Your task to perform on an android device: Turn on the flashlight Image 0: 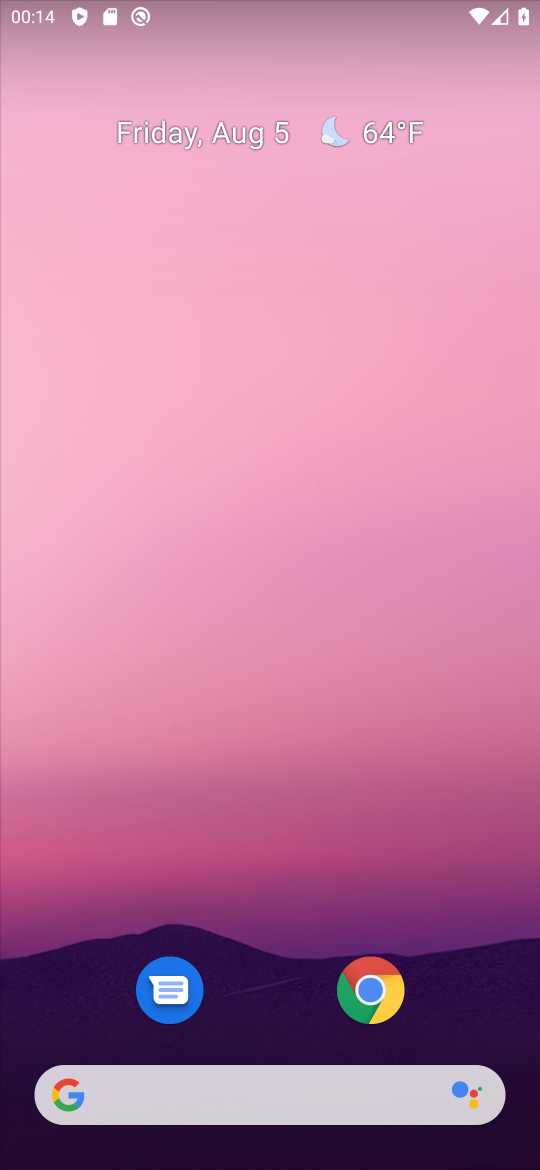
Step 0: press back button
Your task to perform on an android device: Turn on the flashlight Image 1: 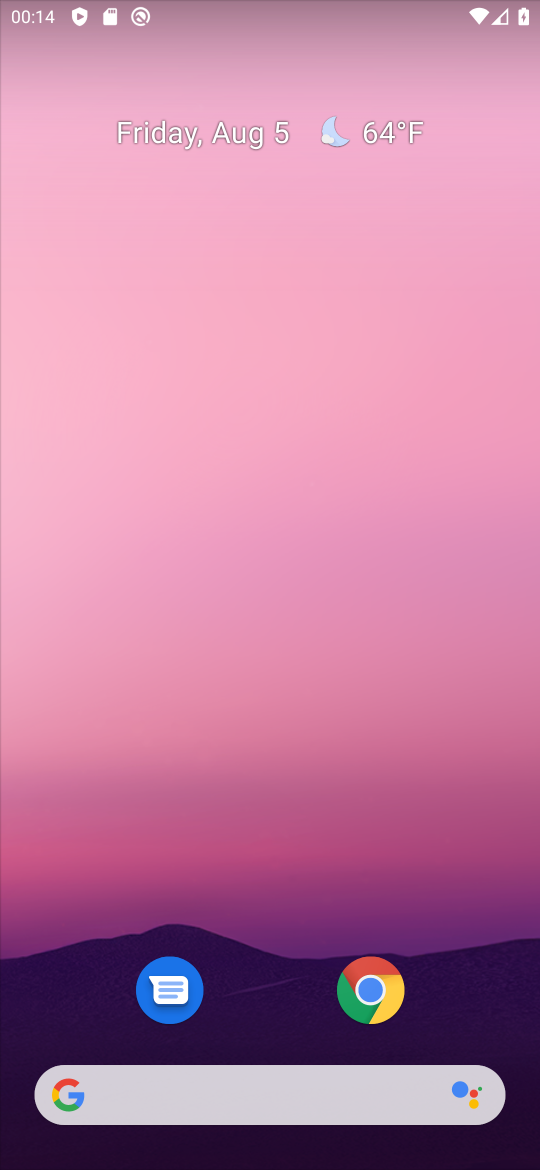
Step 1: press home button
Your task to perform on an android device: Turn on the flashlight Image 2: 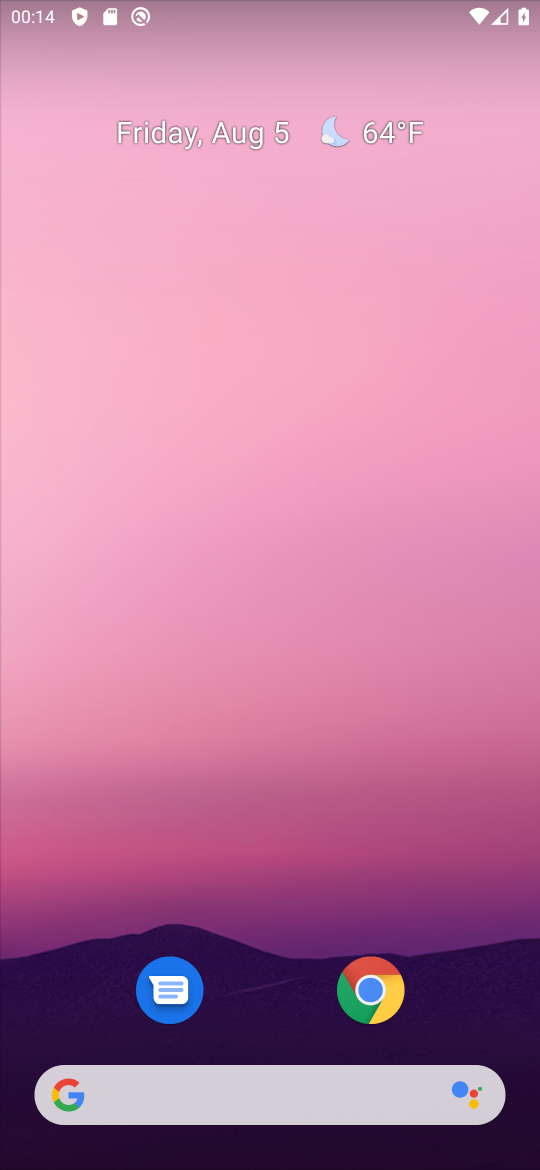
Step 2: drag from (474, 972) to (296, 87)
Your task to perform on an android device: Turn on the flashlight Image 3: 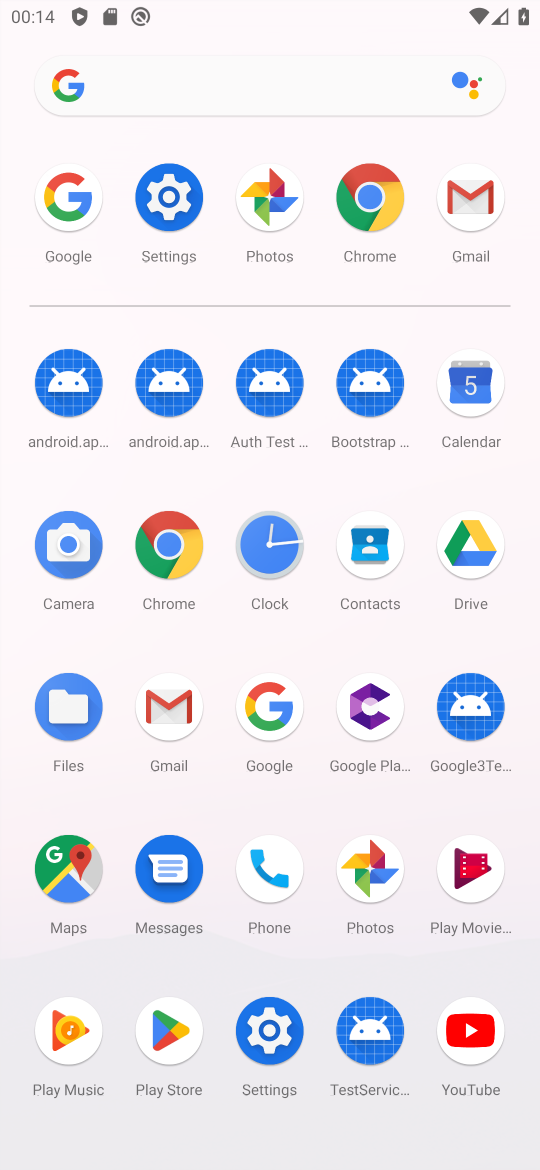
Step 3: press home button
Your task to perform on an android device: Turn on the flashlight Image 4: 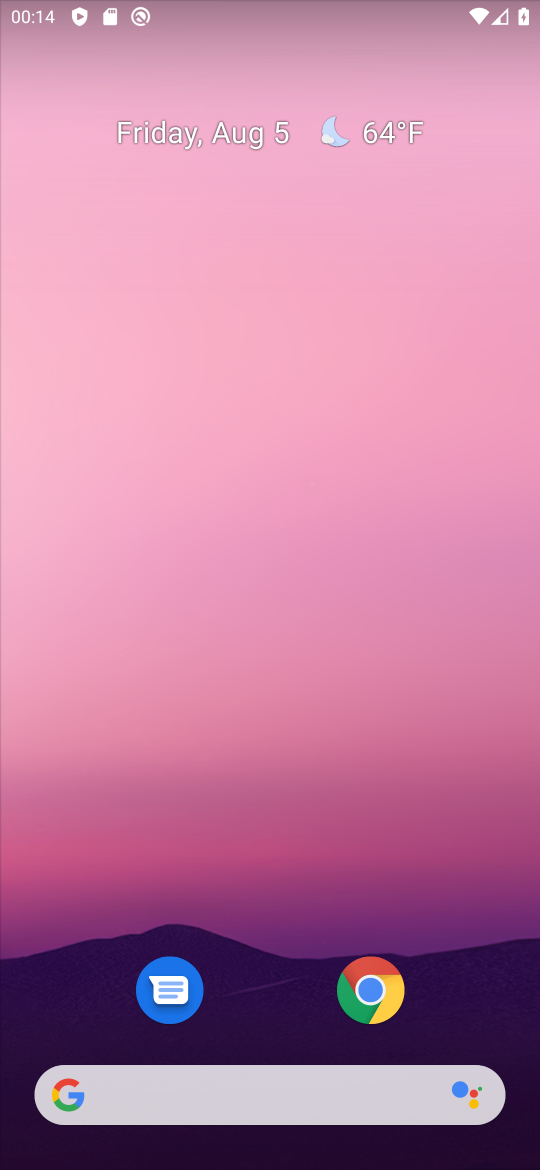
Step 4: drag from (310, 11) to (419, 857)
Your task to perform on an android device: Turn on the flashlight Image 5: 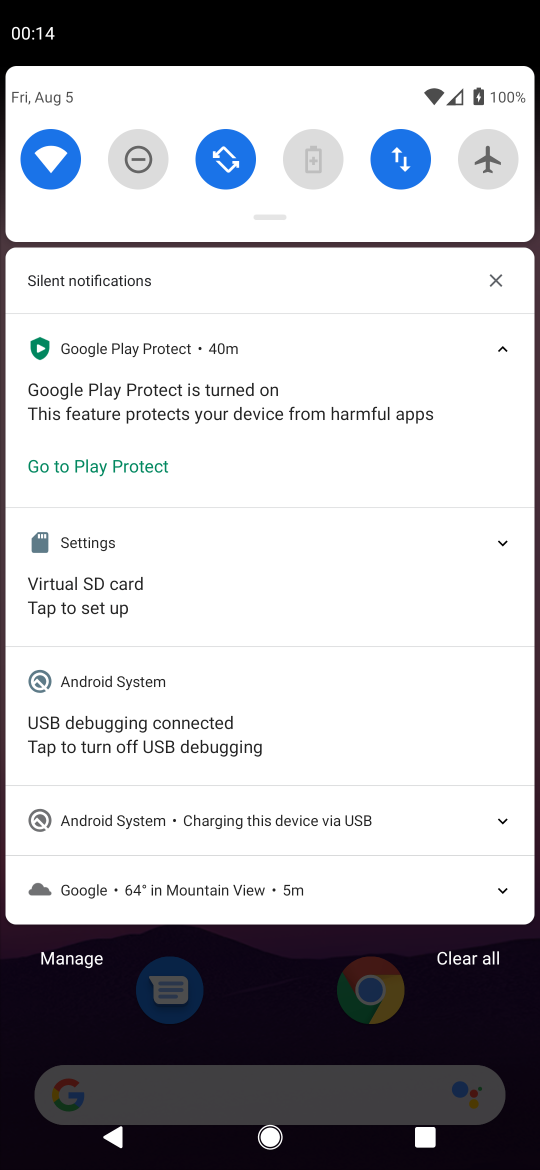
Step 5: drag from (268, 193) to (344, 1130)
Your task to perform on an android device: Turn on the flashlight Image 6: 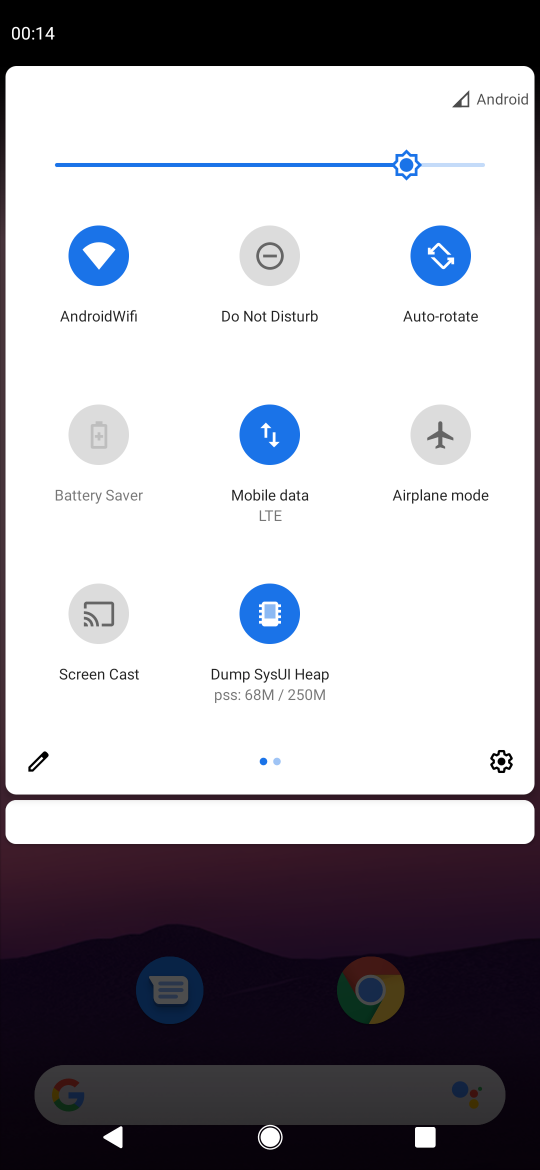
Step 6: click (32, 756)
Your task to perform on an android device: Turn on the flashlight Image 7: 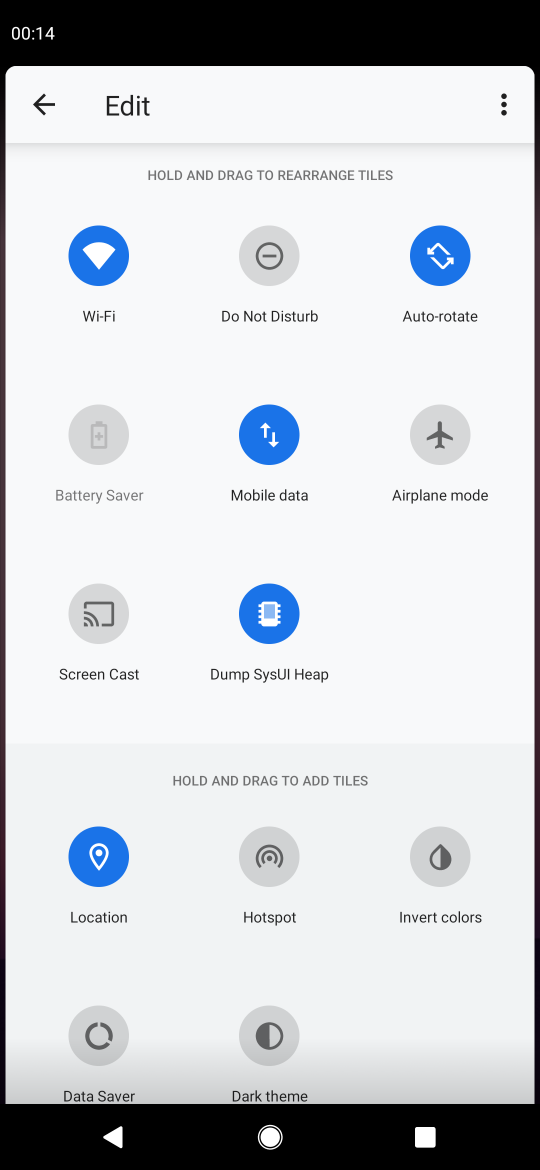
Step 7: click (38, 756)
Your task to perform on an android device: Turn on the flashlight Image 8: 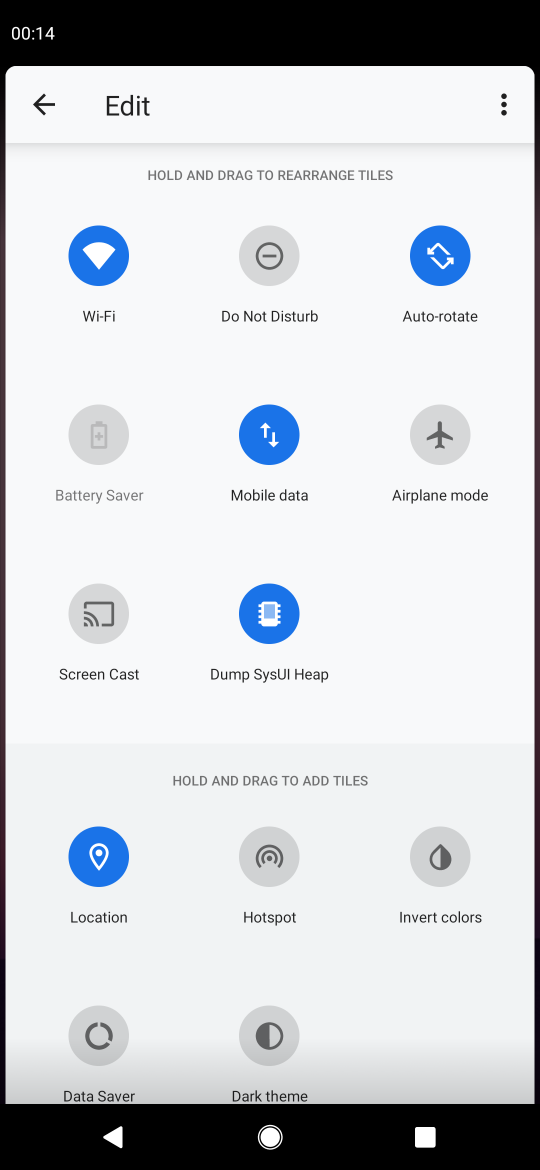
Step 8: task complete